Your task to perform on an android device: Do I have any events tomorrow? Image 0: 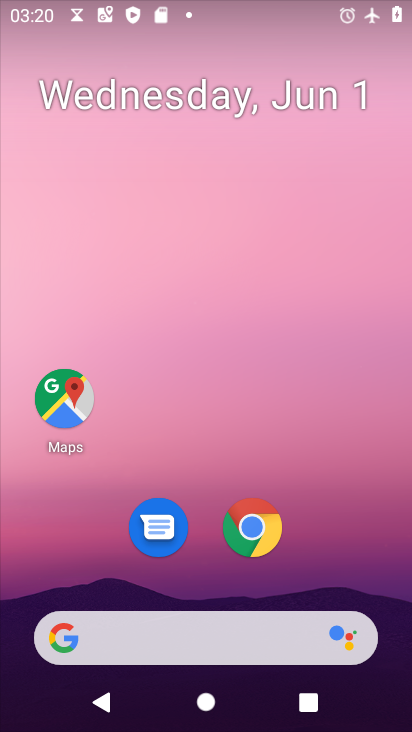
Step 0: drag from (330, 559) to (238, 27)
Your task to perform on an android device: Do I have any events tomorrow? Image 1: 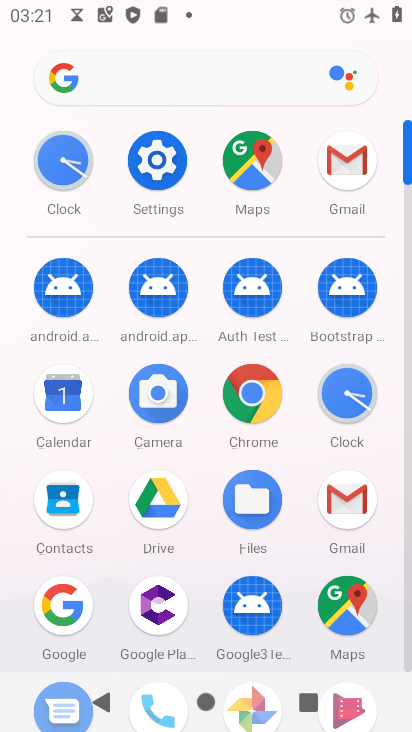
Step 1: click (43, 405)
Your task to perform on an android device: Do I have any events tomorrow? Image 2: 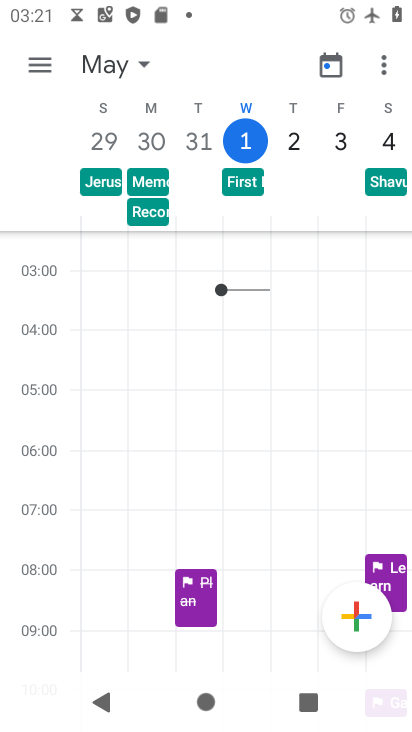
Step 2: click (333, 71)
Your task to perform on an android device: Do I have any events tomorrow? Image 3: 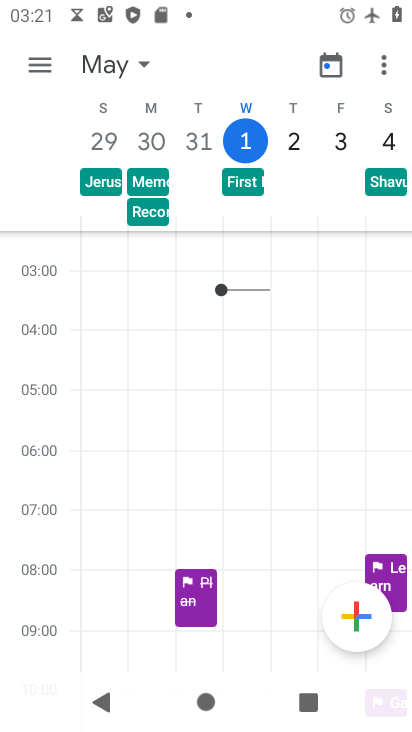
Step 3: click (333, 71)
Your task to perform on an android device: Do I have any events tomorrow? Image 4: 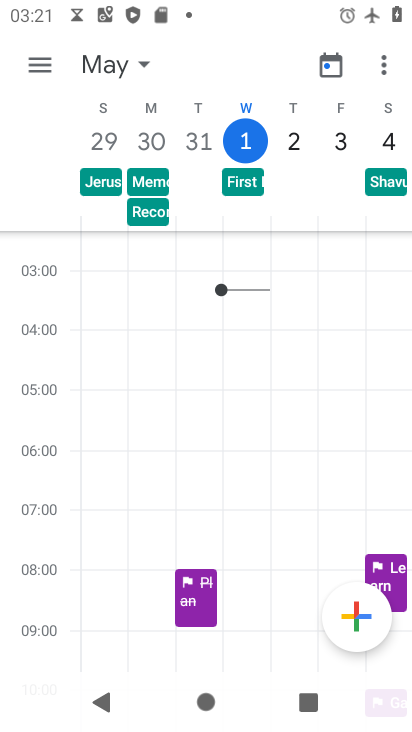
Step 4: click (334, 63)
Your task to perform on an android device: Do I have any events tomorrow? Image 5: 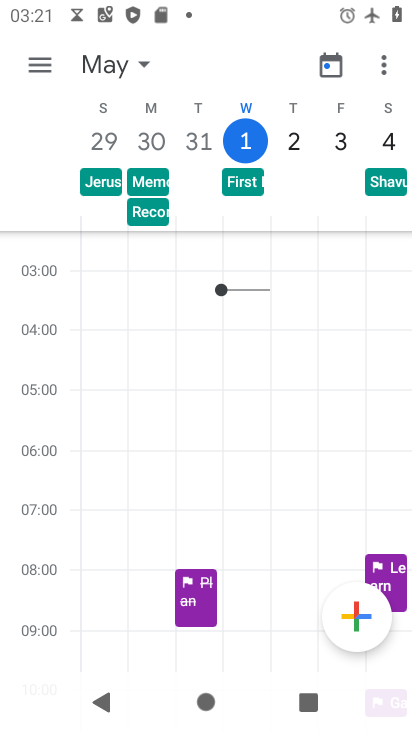
Step 5: click (153, 60)
Your task to perform on an android device: Do I have any events tomorrow? Image 6: 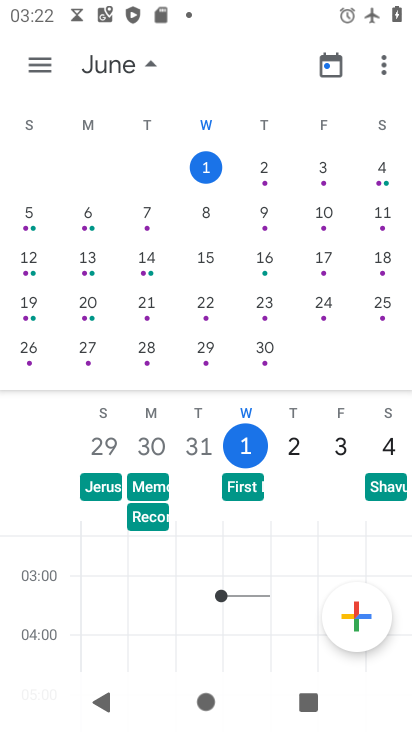
Step 6: click (257, 163)
Your task to perform on an android device: Do I have any events tomorrow? Image 7: 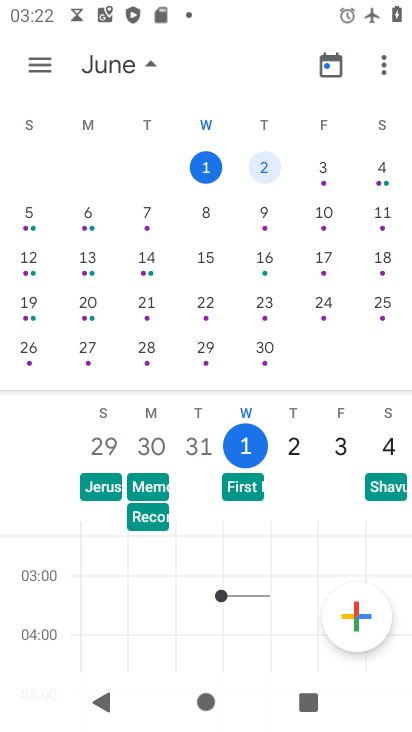
Step 7: click (43, 66)
Your task to perform on an android device: Do I have any events tomorrow? Image 8: 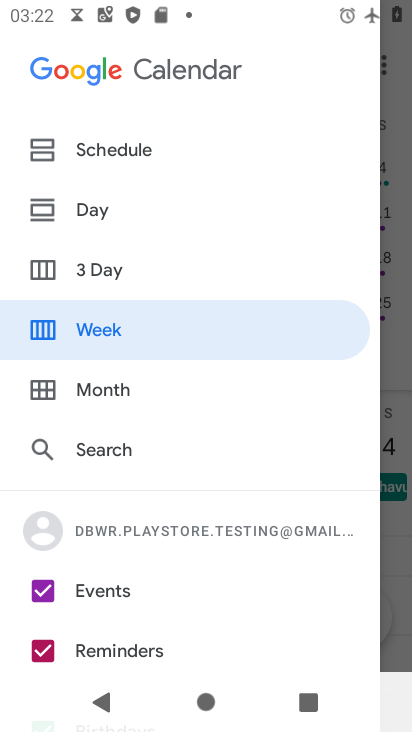
Step 8: click (115, 156)
Your task to perform on an android device: Do I have any events tomorrow? Image 9: 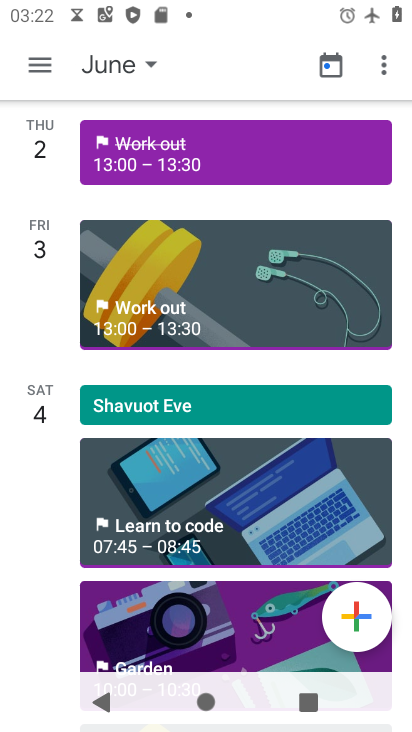
Step 9: task complete